Your task to perform on an android device: check the backup settings in the google photos Image 0: 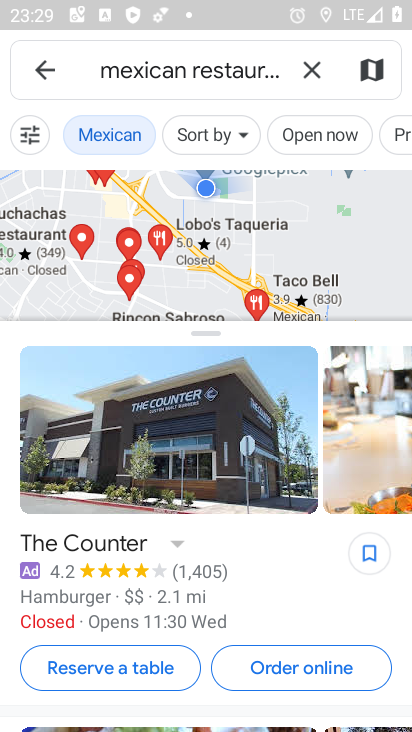
Step 0: press home button
Your task to perform on an android device: check the backup settings in the google photos Image 1: 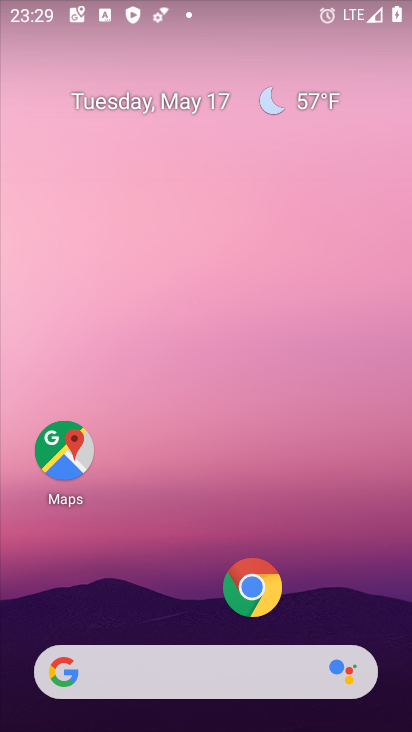
Step 1: drag from (14, 501) to (194, 229)
Your task to perform on an android device: check the backup settings in the google photos Image 2: 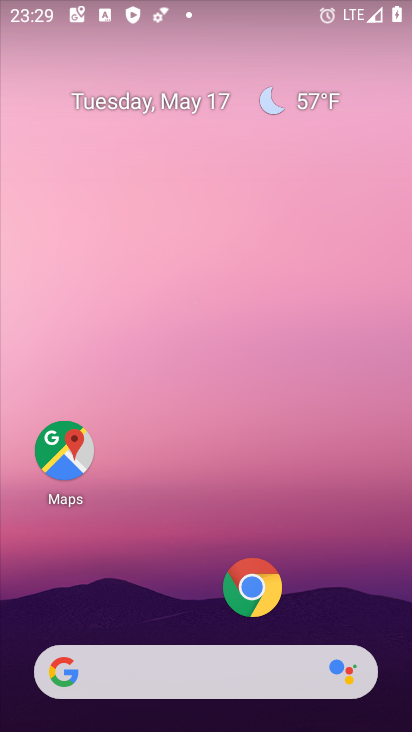
Step 2: drag from (43, 596) to (302, 183)
Your task to perform on an android device: check the backup settings in the google photos Image 3: 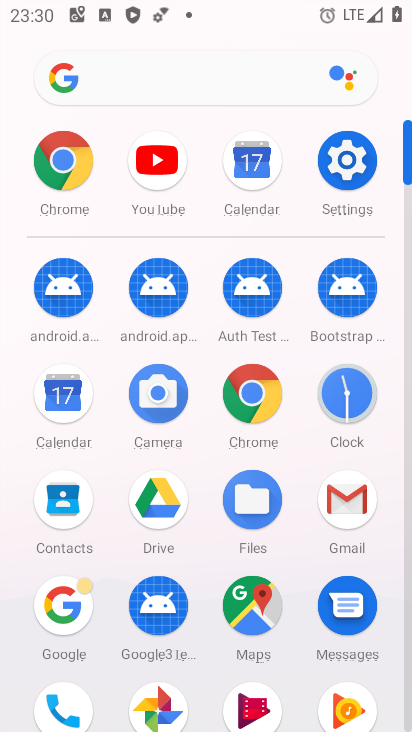
Step 3: click (160, 693)
Your task to perform on an android device: check the backup settings in the google photos Image 4: 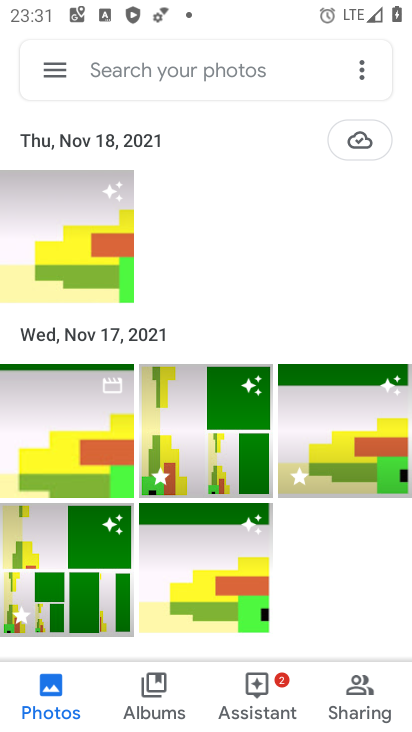
Step 4: task complete